Your task to perform on an android device: Show me the alarms in the clock app Image 0: 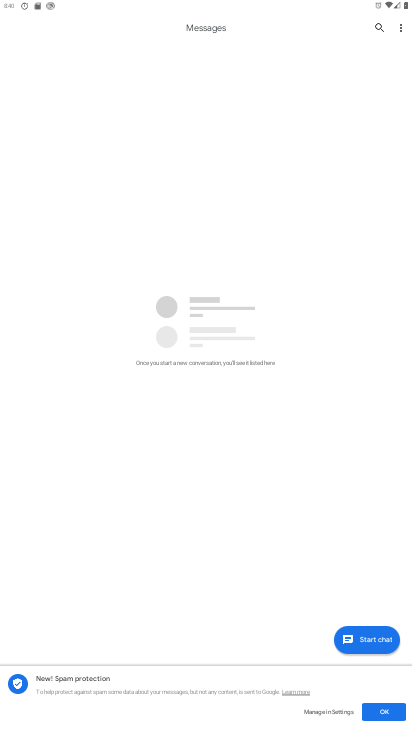
Step 0: press home button
Your task to perform on an android device: Show me the alarms in the clock app Image 1: 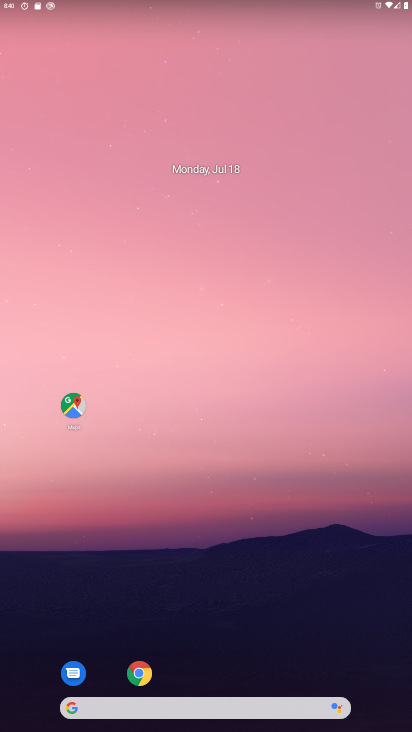
Step 1: drag from (191, 560) to (167, 48)
Your task to perform on an android device: Show me the alarms in the clock app Image 2: 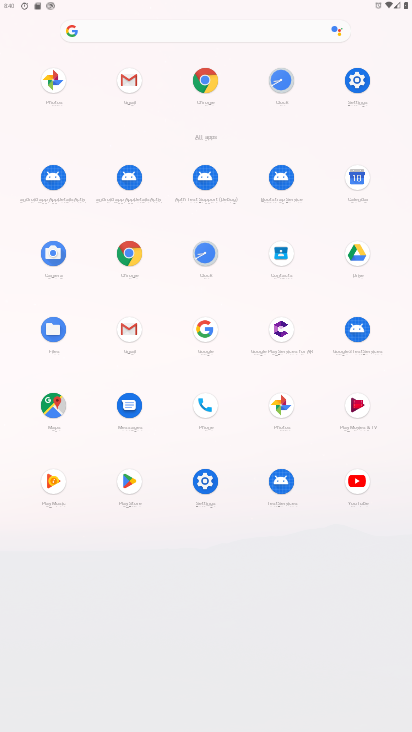
Step 2: click (210, 262)
Your task to perform on an android device: Show me the alarms in the clock app Image 3: 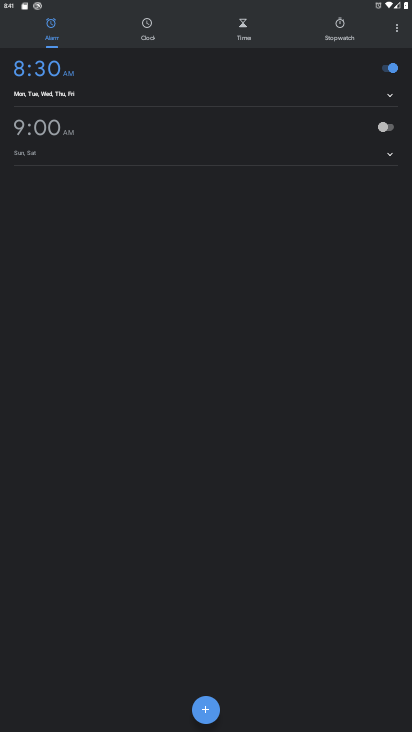
Step 3: task complete